Your task to perform on an android device: remove spam from my inbox in the gmail app Image 0: 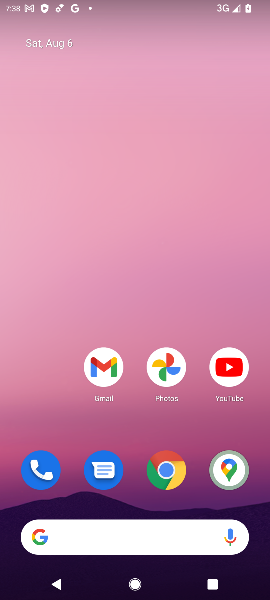
Step 0: drag from (179, 496) to (158, 55)
Your task to perform on an android device: remove spam from my inbox in the gmail app Image 1: 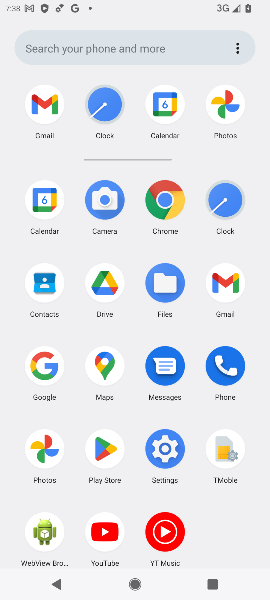
Step 1: click (227, 294)
Your task to perform on an android device: remove spam from my inbox in the gmail app Image 2: 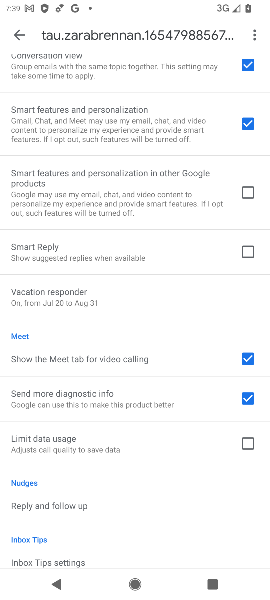
Step 2: click (21, 32)
Your task to perform on an android device: remove spam from my inbox in the gmail app Image 3: 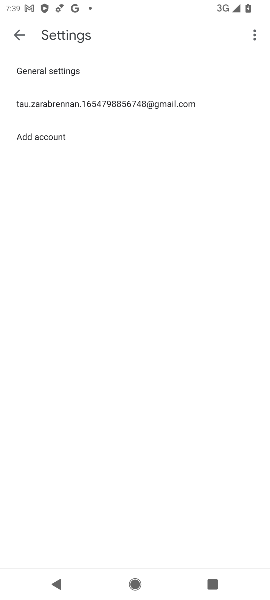
Step 3: click (67, 72)
Your task to perform on an android device: remove spam from my inbox in the gmail app Image 4: 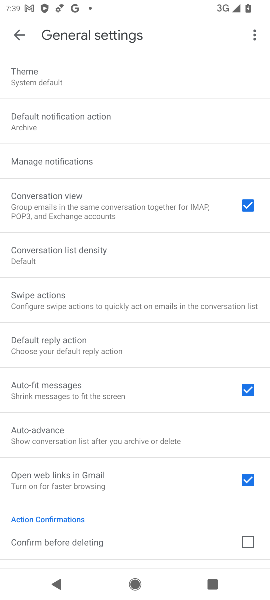
Step 4: task complete